Your task to perform on an android device: turn off priority inbox in the gmail app Image 0: 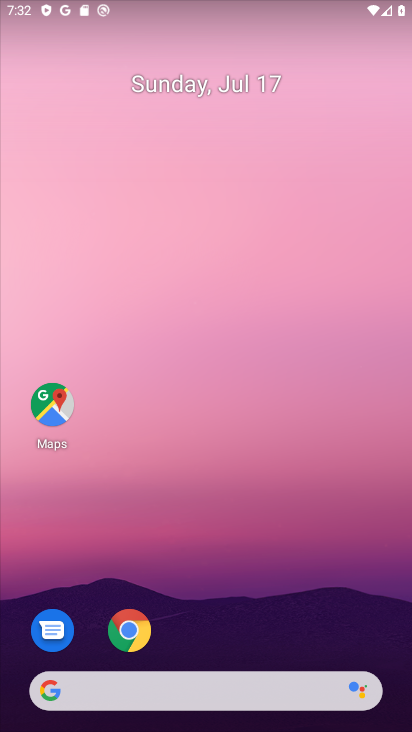
Step 0: drag from (180, 285) to (180, 76)
Your task to perform on an android device: turn off priority inbox in the gmail app Image 1: 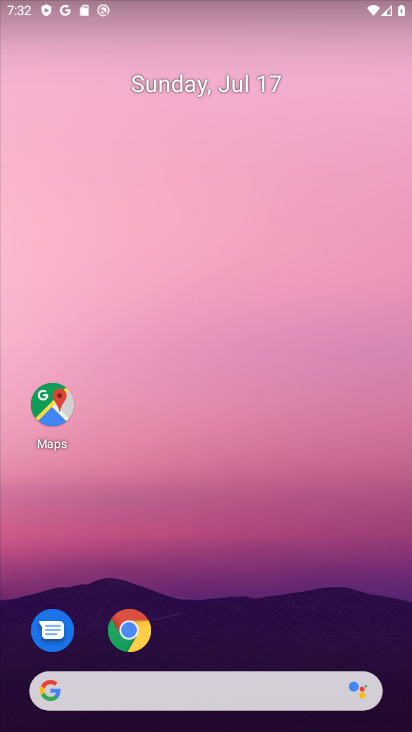
Step 1: drag from (188, 558) to (233, 132)
Your task to perform on an android device: turn off priority inbox in the gmail app Image 2: 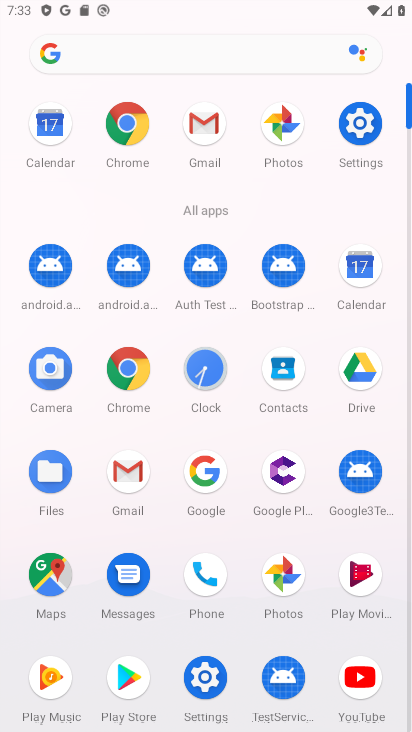
Step 2: click (203, 125)
Your task to perform on an android device: turn off priority inbox in the gmail app Image 3: 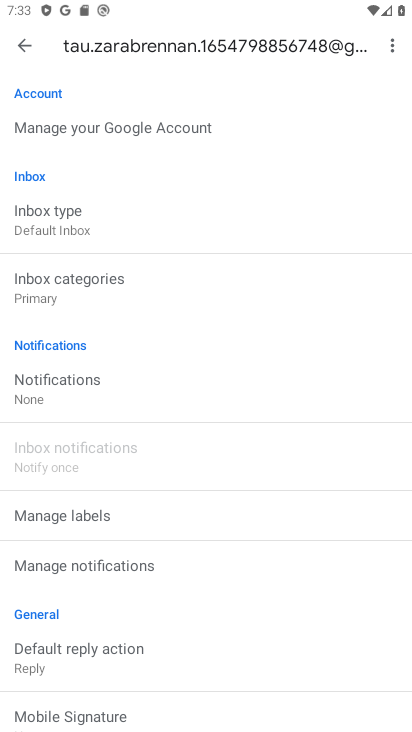
Step 3: click (62, 217)
Your task to perform on an android device: turn off priority inbox in the gmail app Image 4: 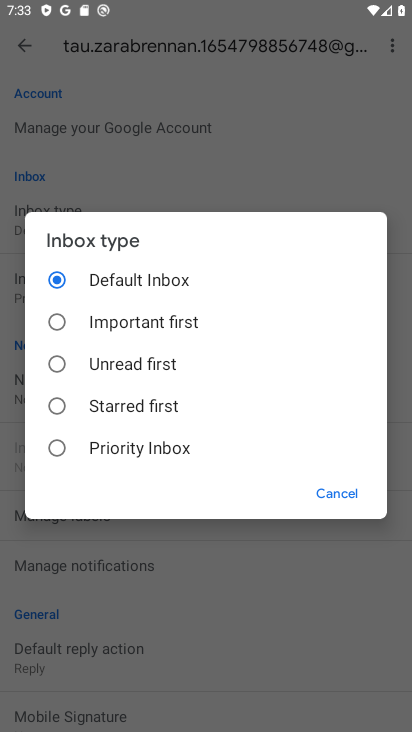
Step 4: task complete